Your task to perform on an android device: Google the capital of Venezuela Image 0: 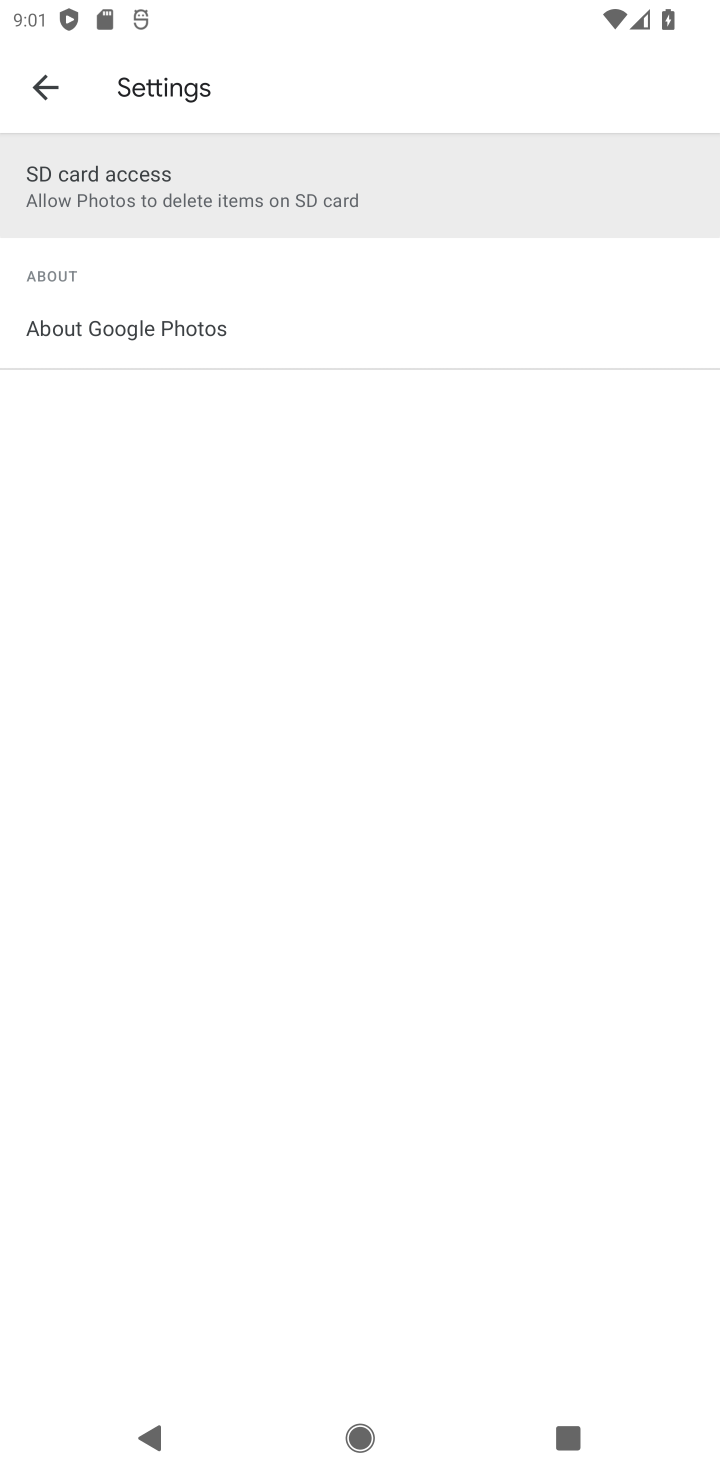
Step 0: press home button
Your task to perform on an android device: Google the capital of Venezuela Image 1: 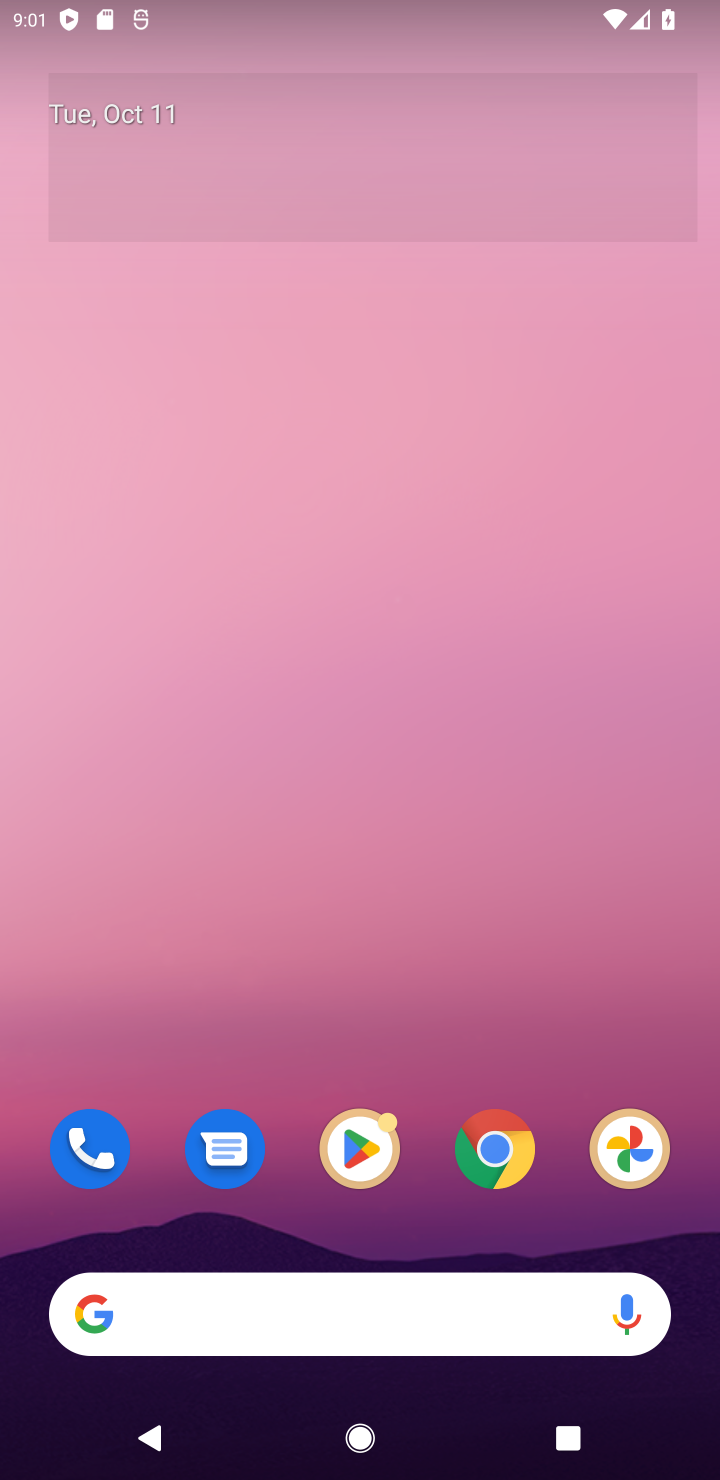
Step 1: drag from (417, 265) to (402, 92)
Your task to perform on an android device: Google the capital of Venezuela Image 2: 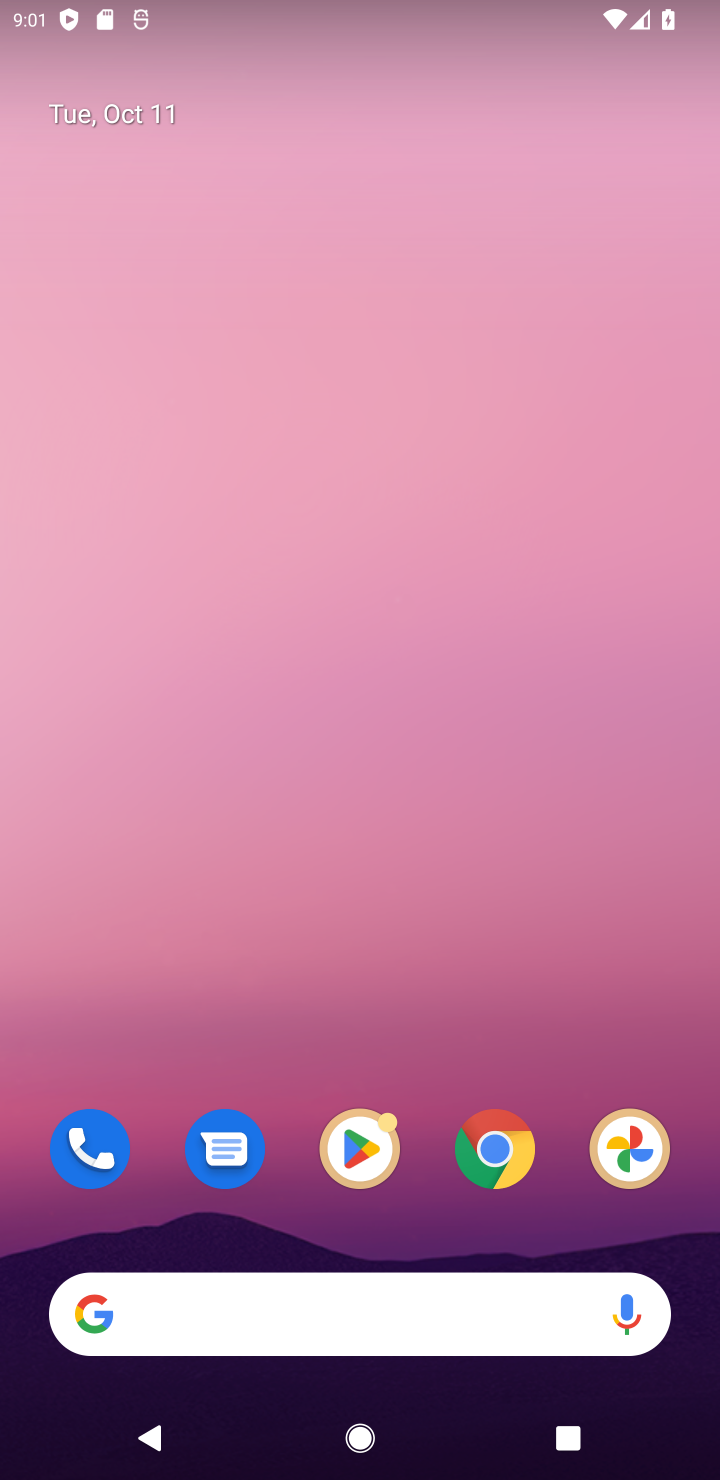
Step 2: drag from (396, 1187) to (449, 169)
Your task to perform on an android device: Google the capital of Venezuela Image 3: 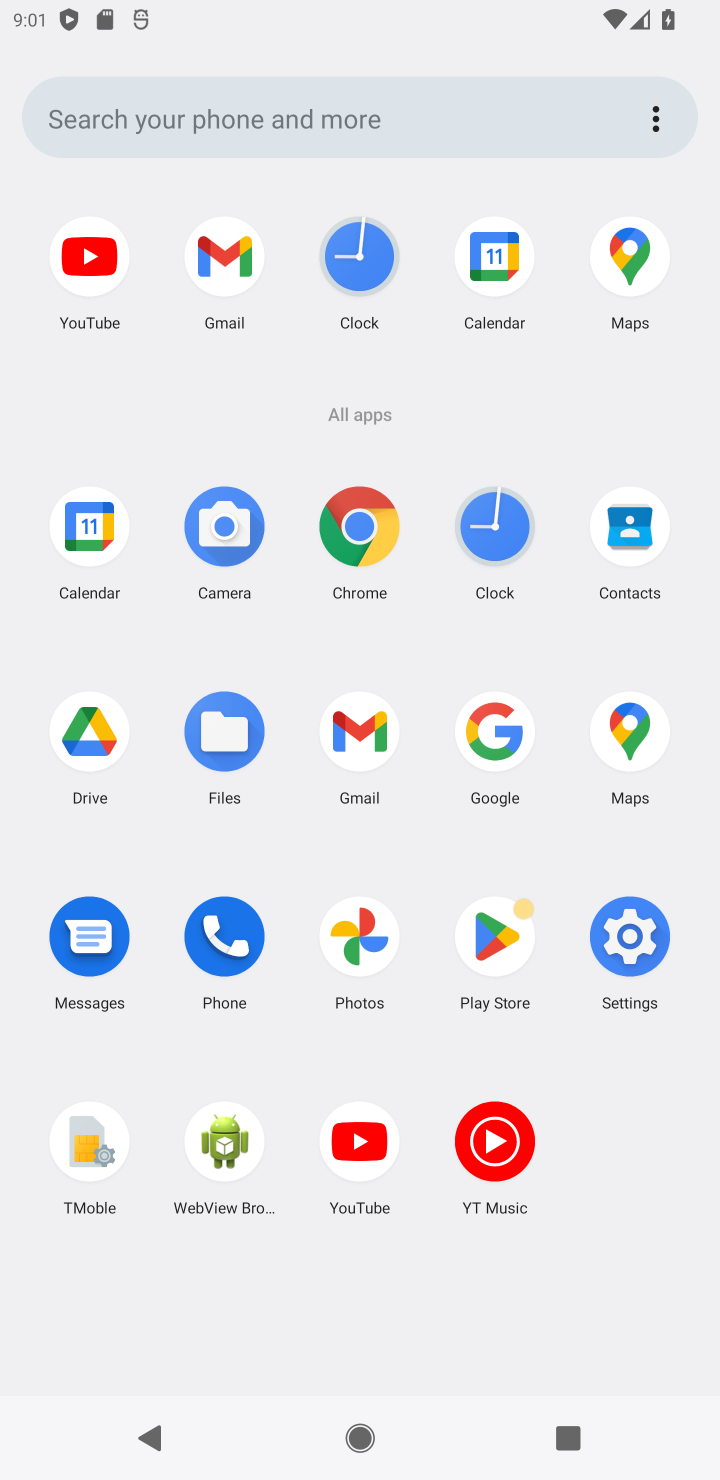
Step 3: click (375, 528)
Your task to perform on an android device: Google the capital of Venezuela Image 4: 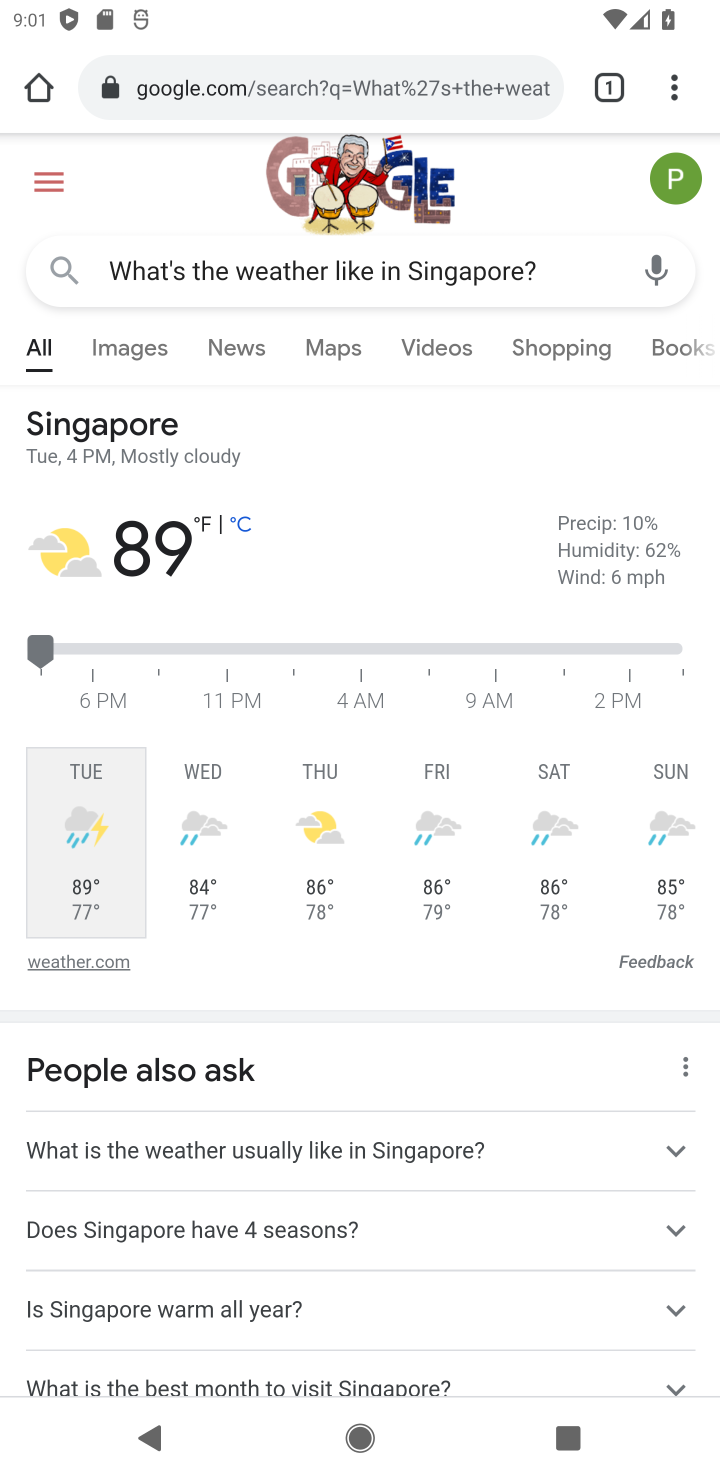
Step 4: click (318, 62)
Your task to perform on an android device: Google the capital of Venezuela Image 5: 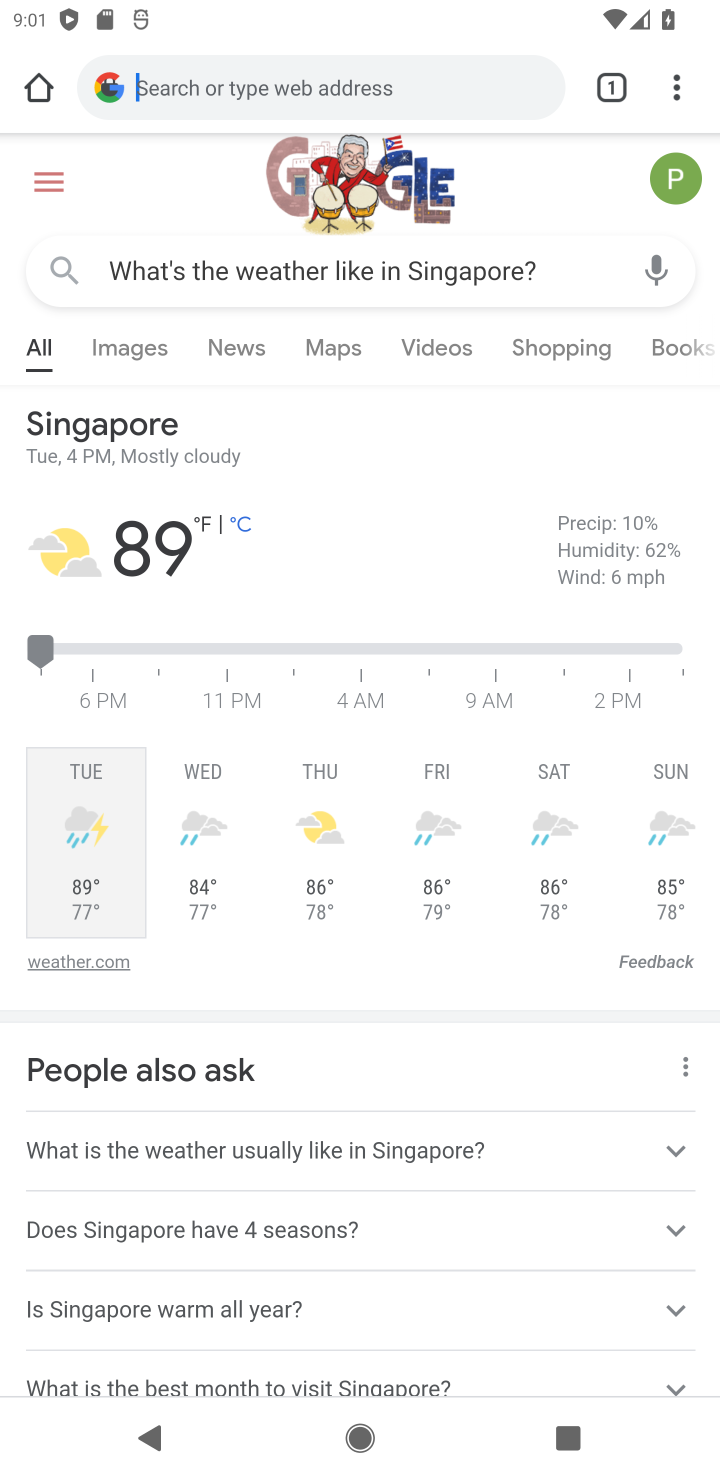
Step 5: click (318, 72)
Your task to perform on an android device: Google the capital of Venezuela Image 6: 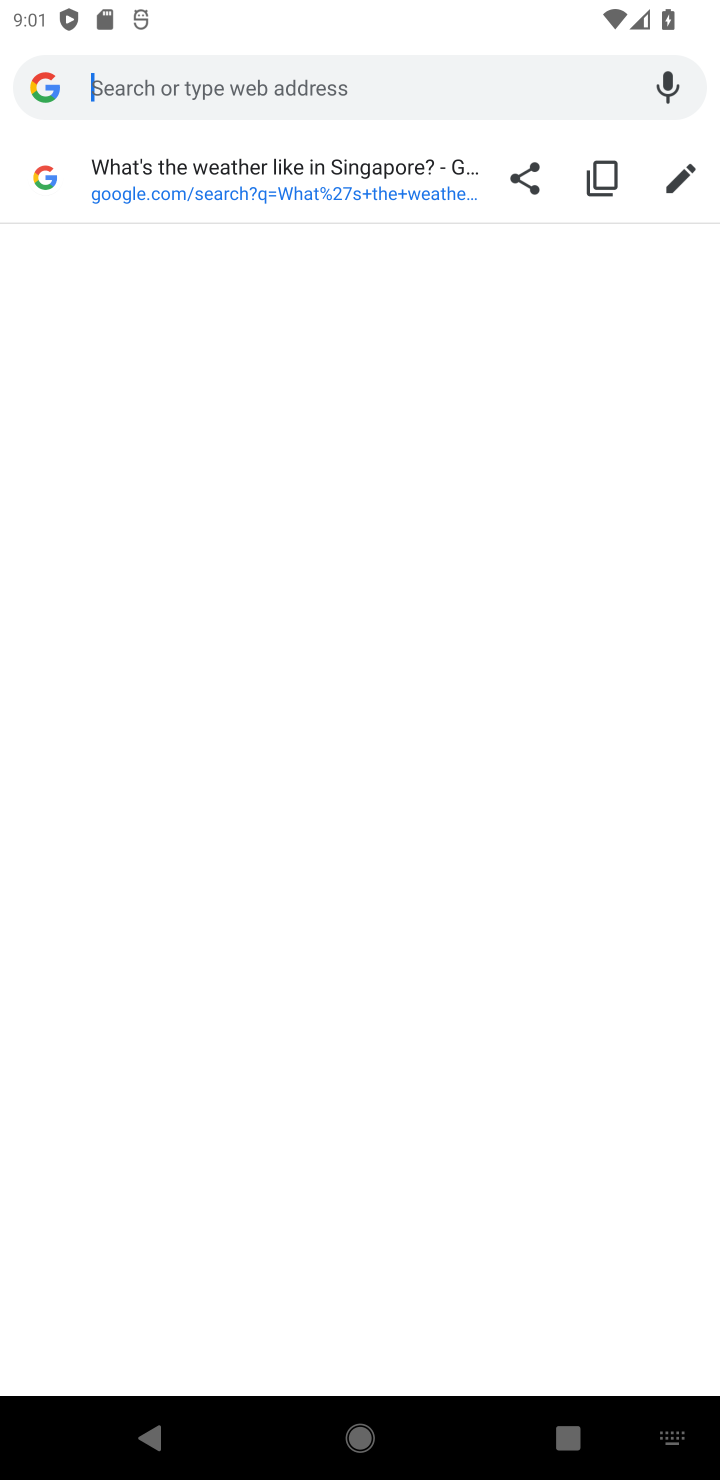
Step 6: type ""
Your task to perform on an android device: Google the capital of Venezuela Image 7: 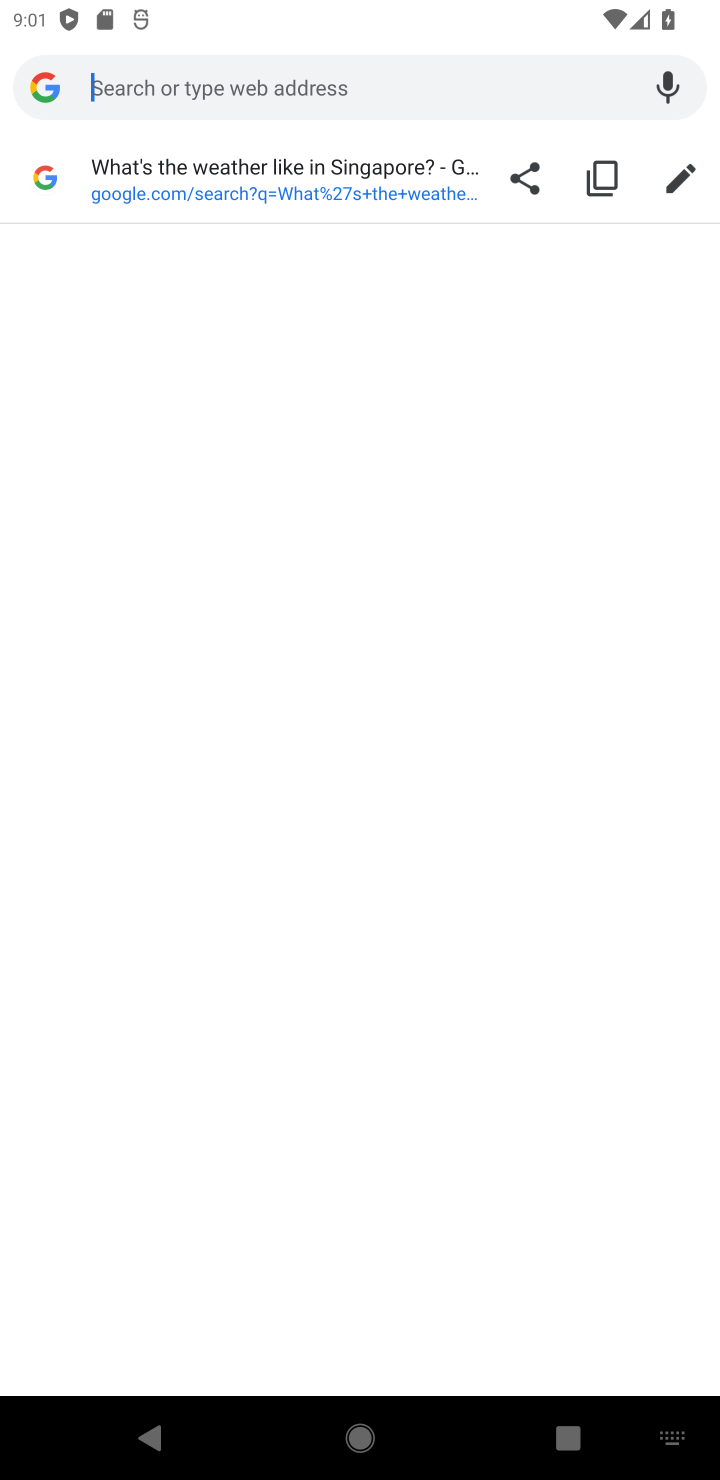
Step 7: type "capital of Venezuela"
Your task to perform on an android device: Google the capital of Venezuela Image 8: 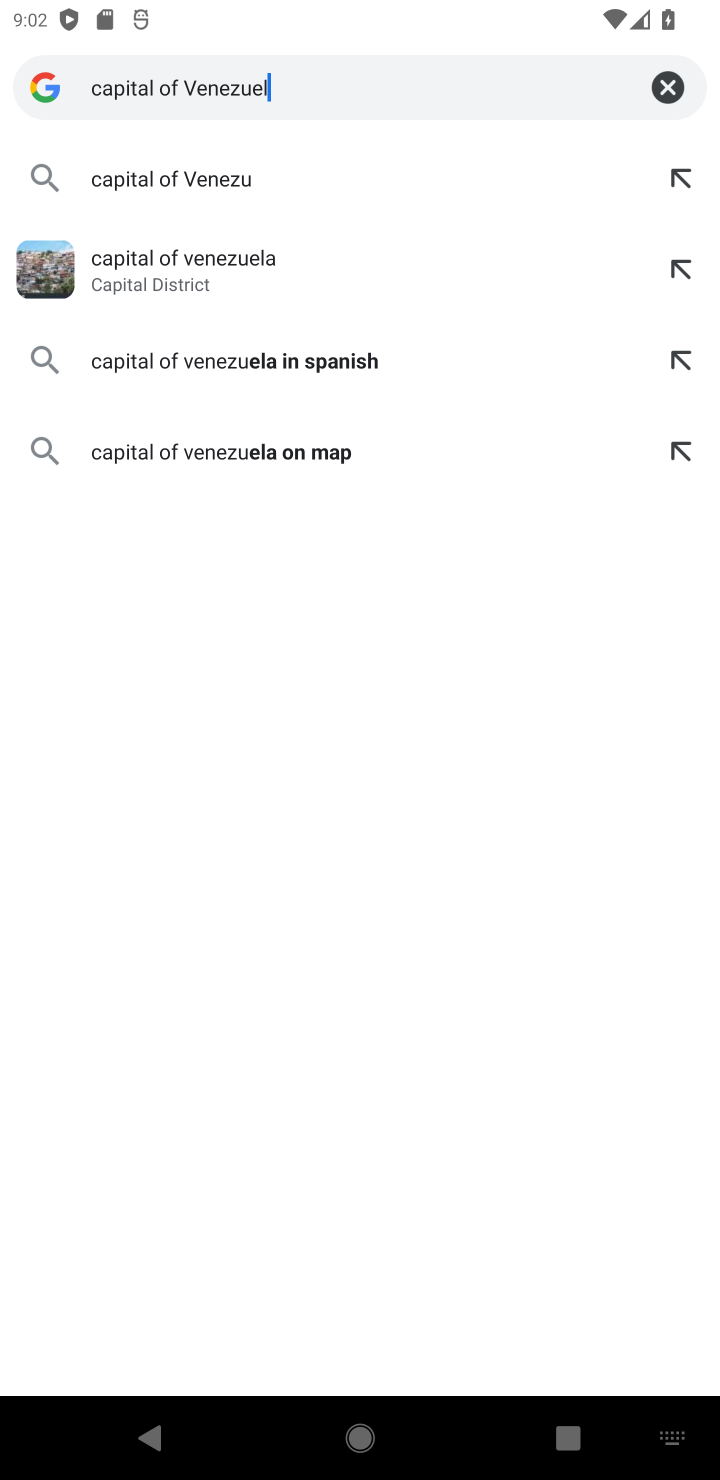
Step 8: press enter
Your task to perform on an android device: Google the capital of Venezuela Image 9: 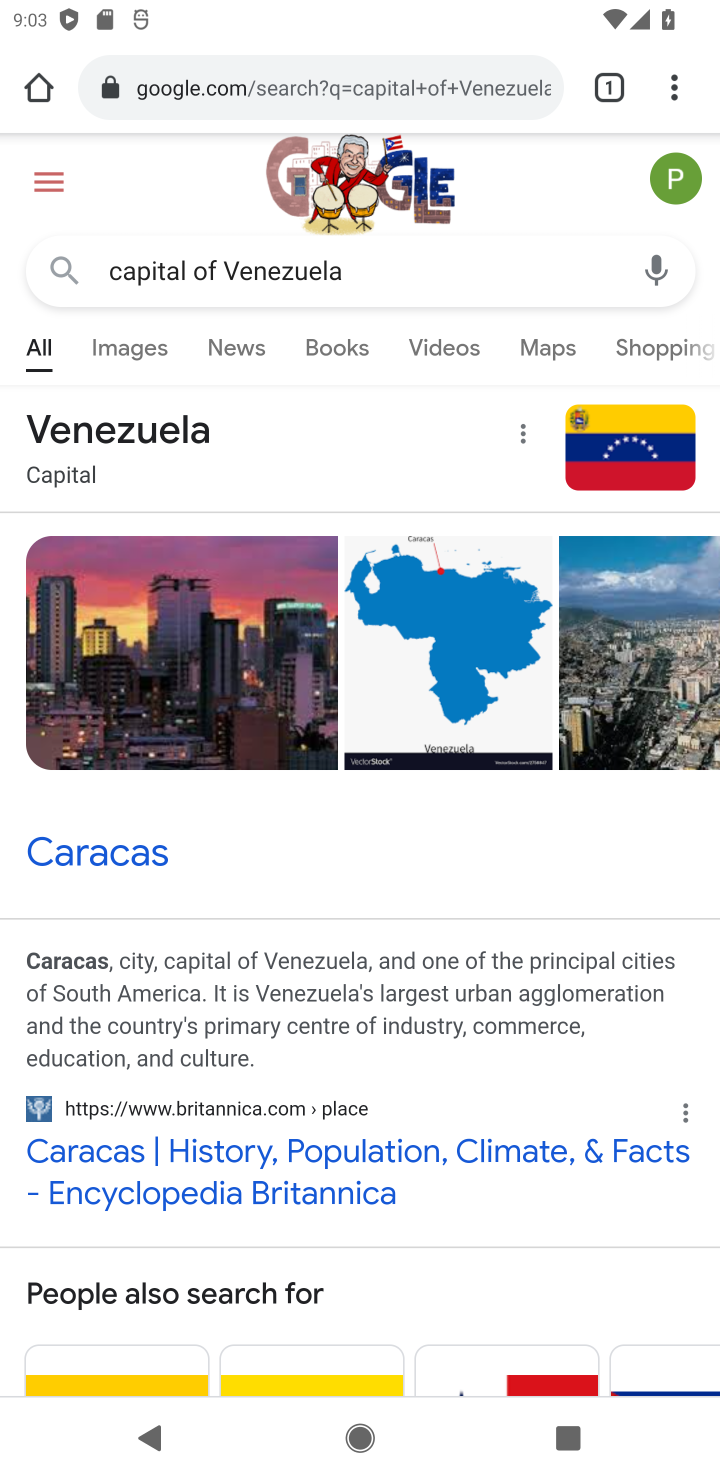
Step 9: task complete